Your task to perform on an android device: Is it going to rain tomorrow? Image 0: 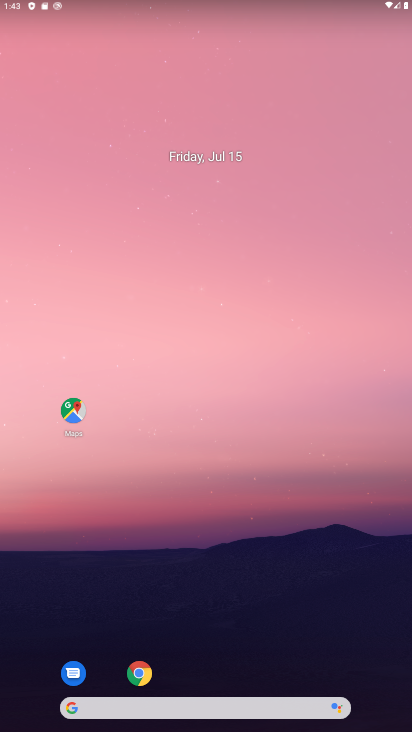
Step 0: drag from (379, 684) to (299, 92)
Your task to perform on an android device: Is it going to rain tomorrow? Image 1: 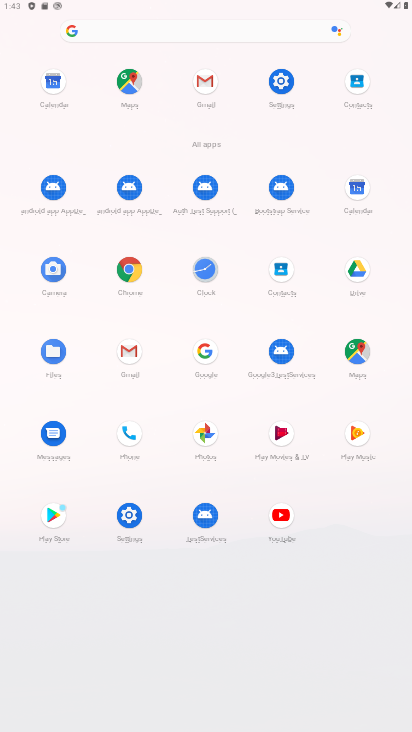
Step 1: click (204, 359)
Your task to perform on an android device: Is it going to rain tomorrow? Image 2: 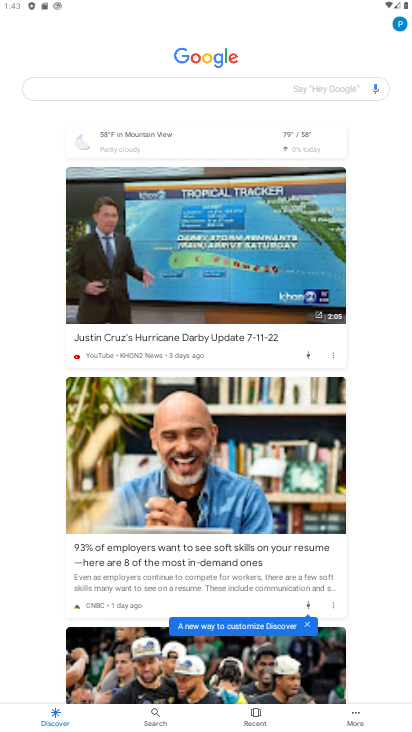
Step 2: click (290, 128)
Your task to perform on an android device: Is it going to rain tomorrow? Image 3: 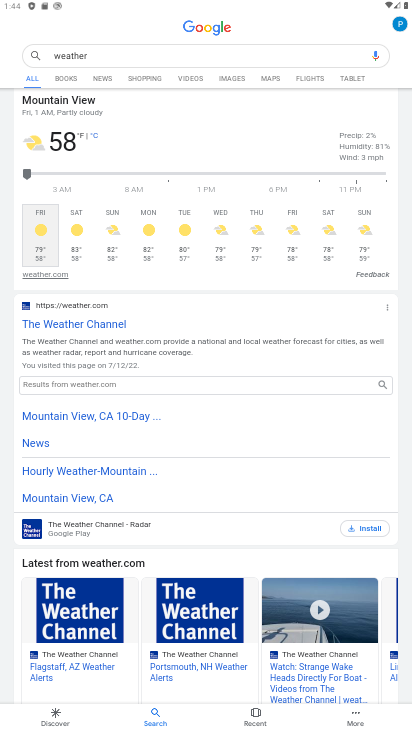
Step 3: task complete